Your task to perform on an android device: Show me productivity apps on the Play Store Image 0: 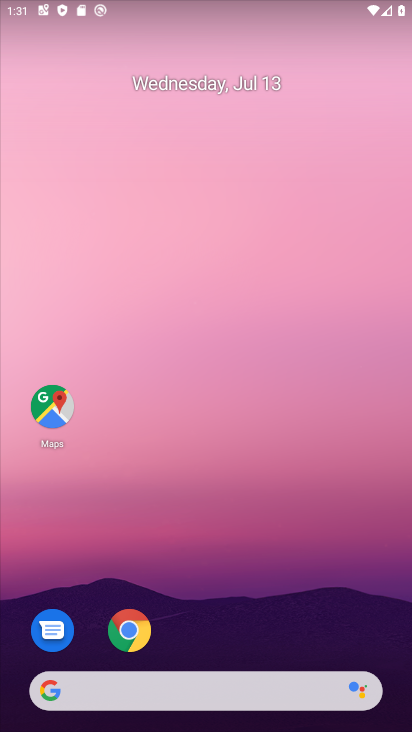
Step 0: drag from (363, 607) to (363, 107)
Your task to perform on an android device: Show me productivity apps on the Play Store Image 1: 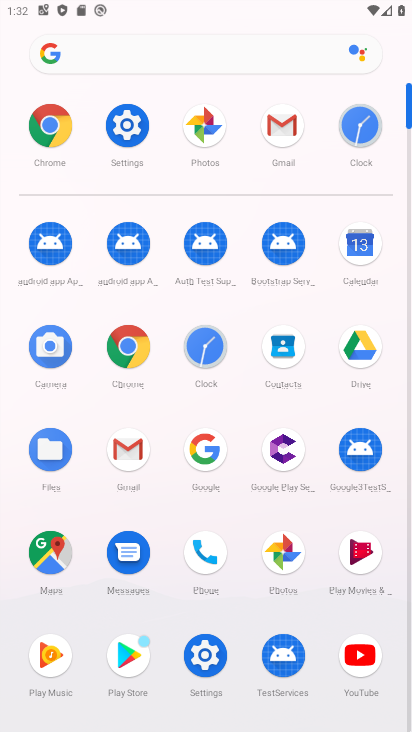
Step 1: click (126, 654)
Your task to perform on an android device: Show me productivity apps on the Play Store Image 2: 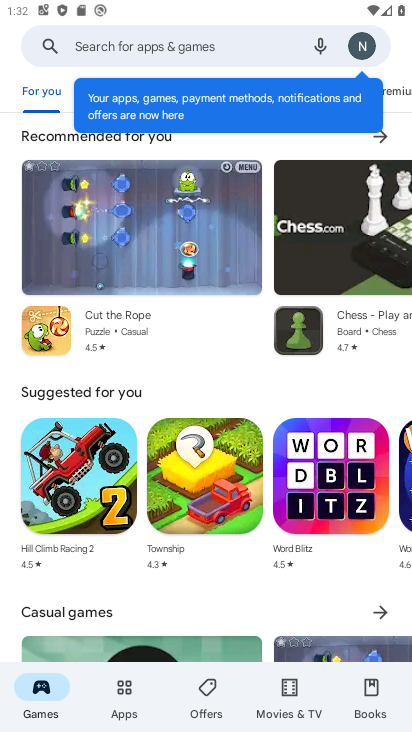
Step 2: click (126, 697)
Your task to perform on an android device: Show me productivity apps on the Play Store Image 3: 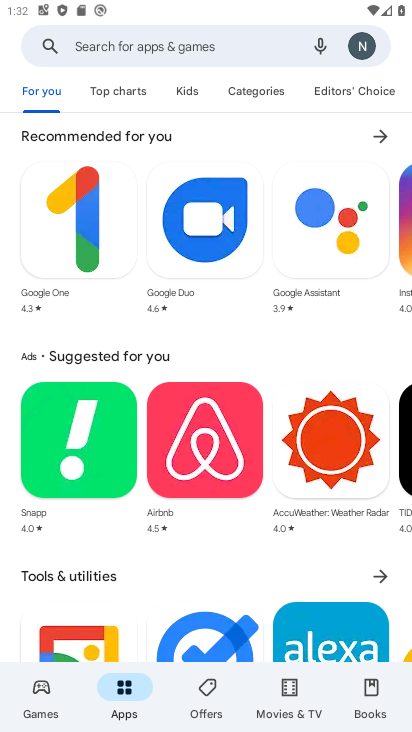
Step 3: task complete